Your task to perform on an android device: open app "Grab" Image 0: 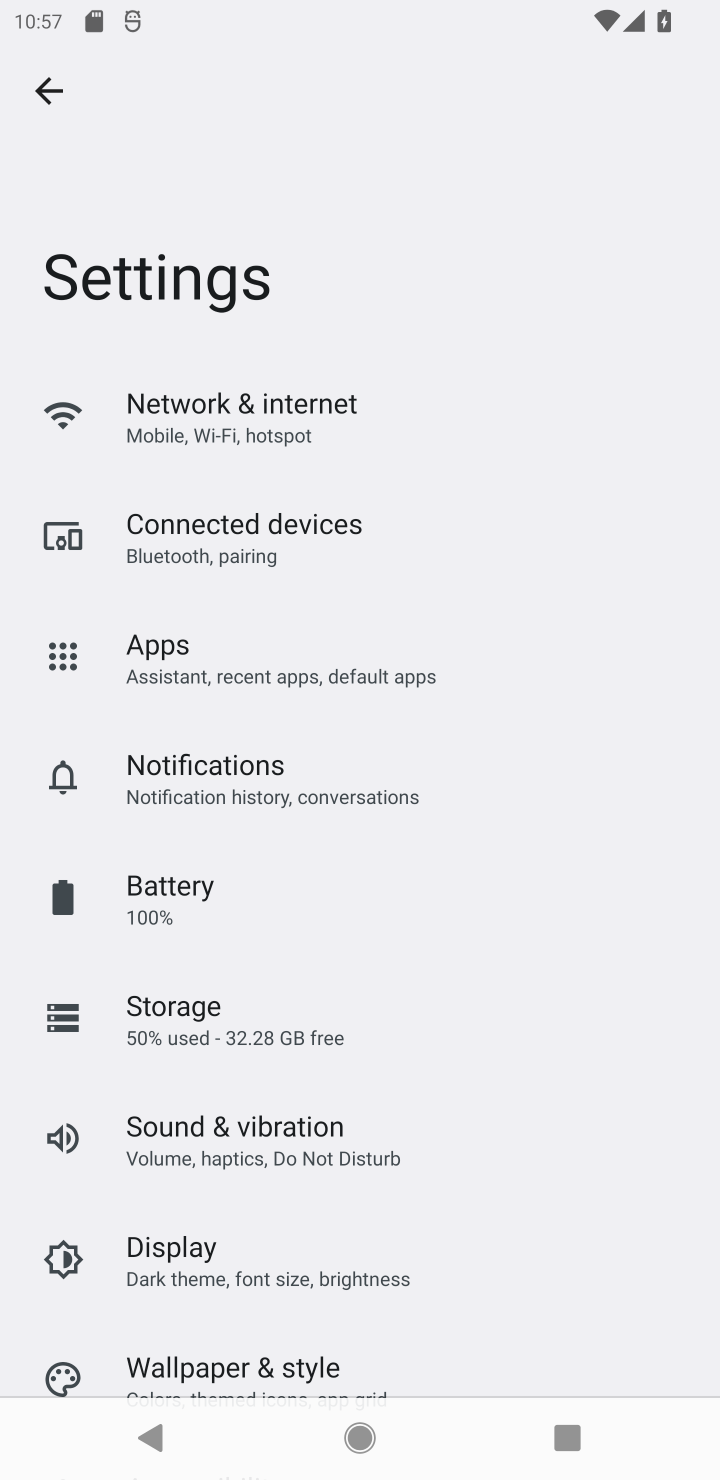
Step 0: press home button
Your task to perform on an android device: open app "Grab" Image 1: 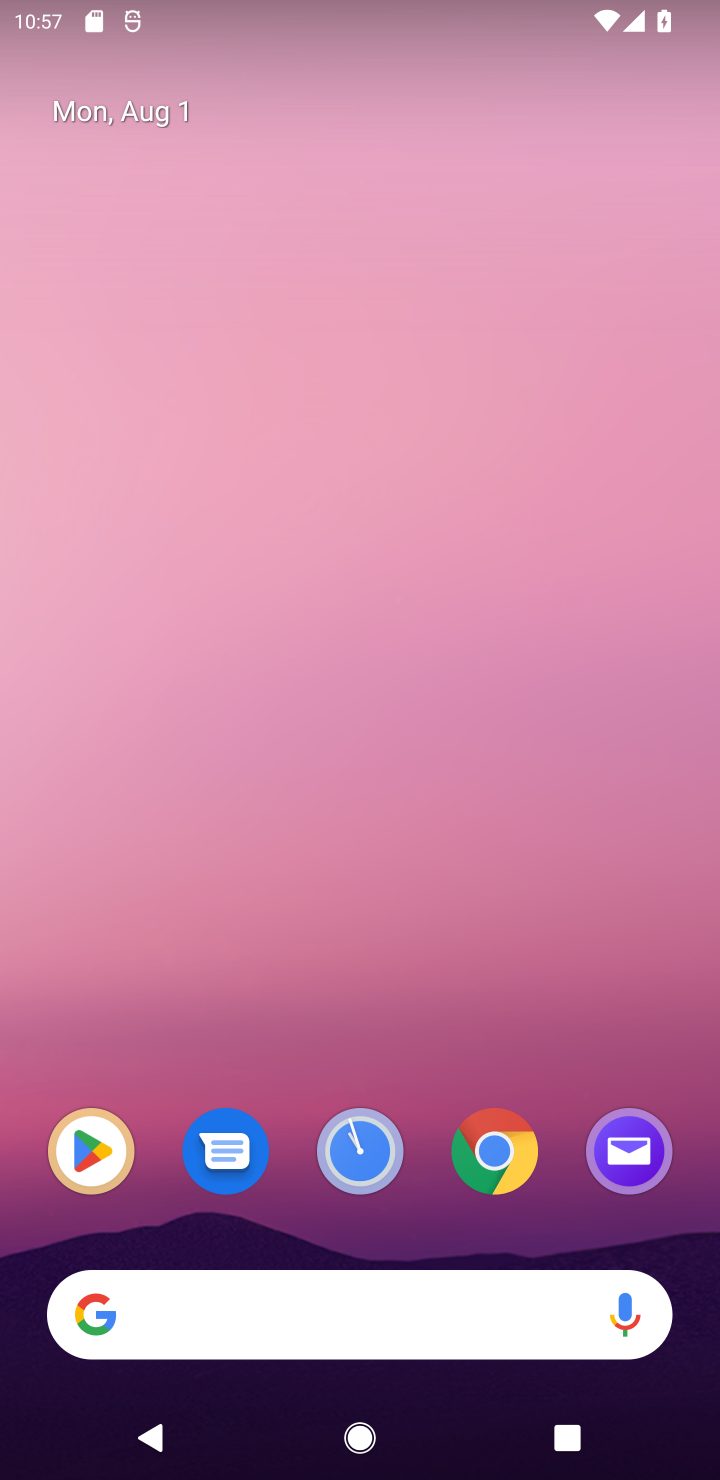
Step 1: drag from (339, 1260) to (579, 377)
Your task to perform on an android device: open app "Grab" Image 2: 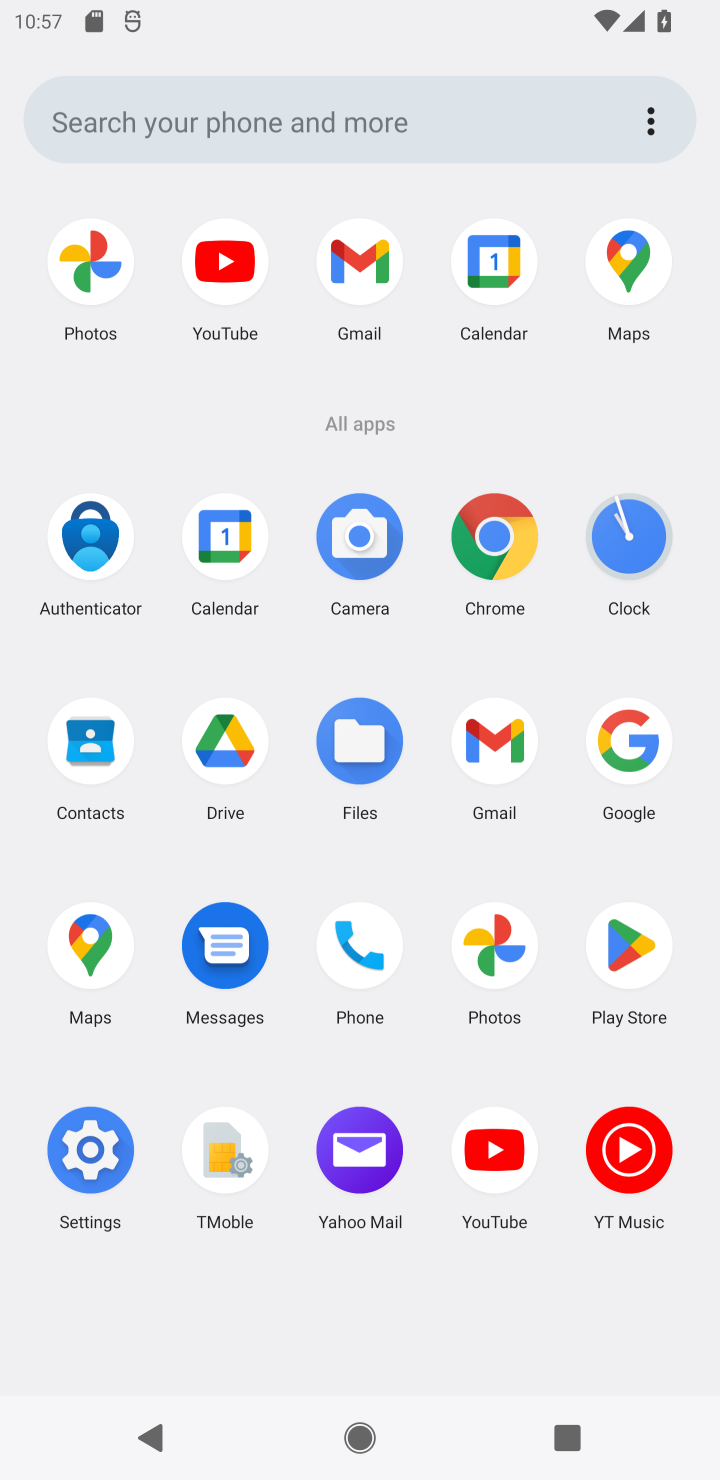
Step 2: click (617, 962)
Your task to perform on an android device: open app "Grab" Image 3: 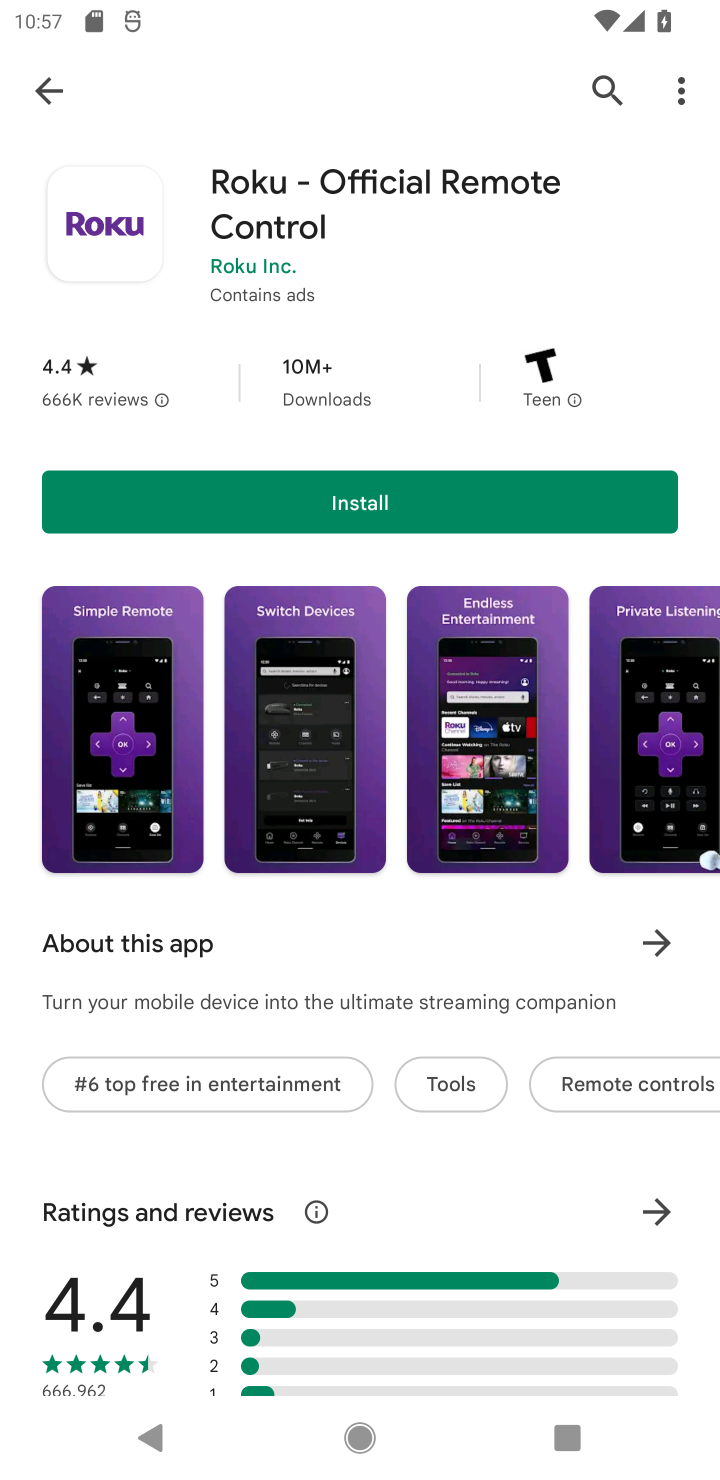
Step 3: click (49, 83)
Your task to perform on an android device: open app "Grab" Image 4: 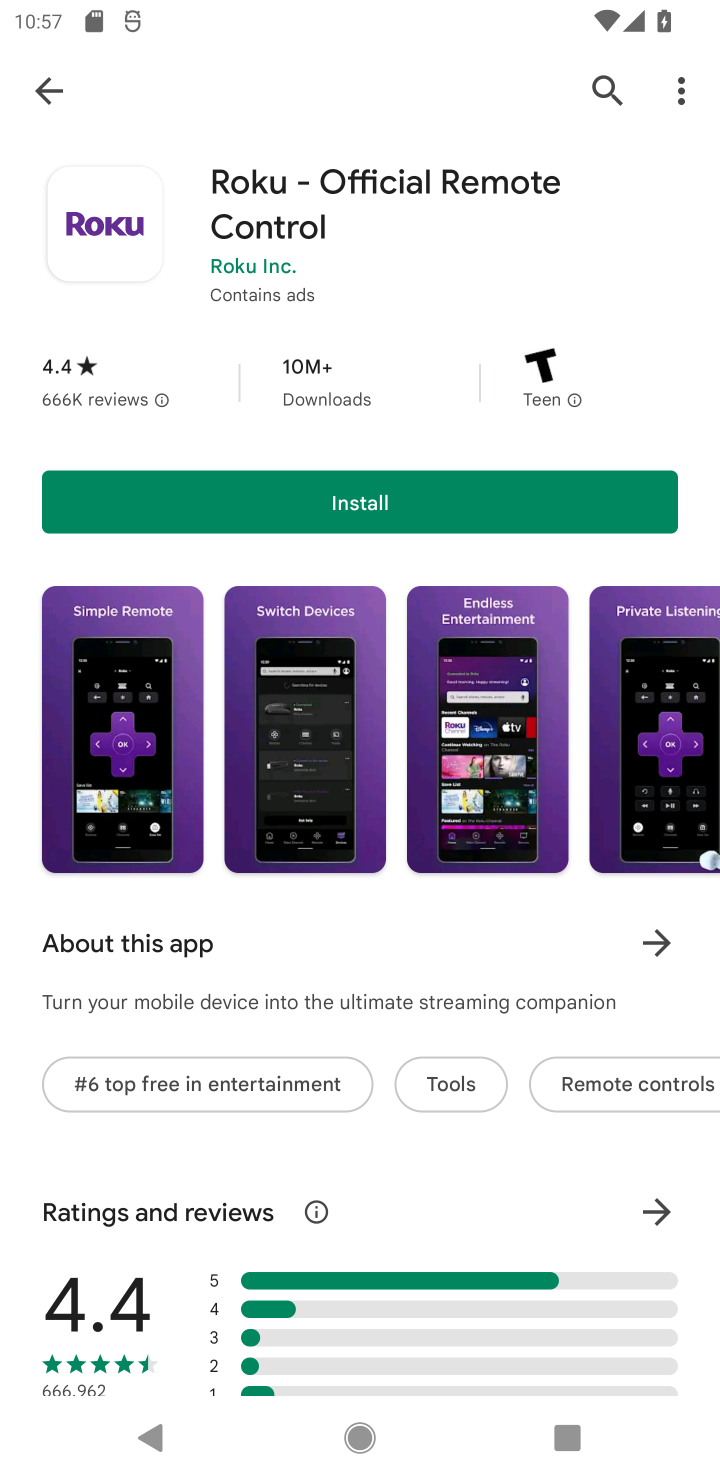
Step 4: click (49, 87)
Your task to perform on an android device: open app "Grab" Image 5: 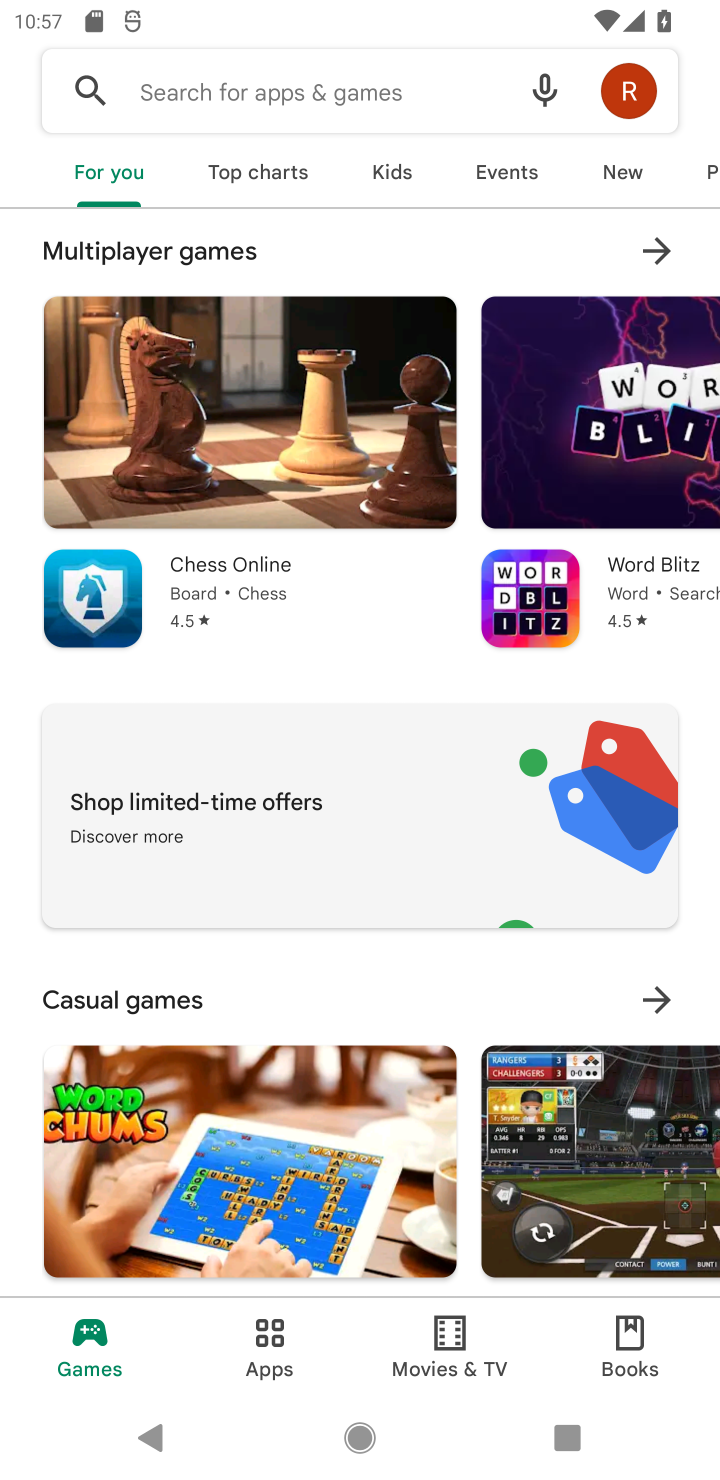
Step 5: click (164, 96)
Your task to perform on an android device: open app "Grab" Image 6: 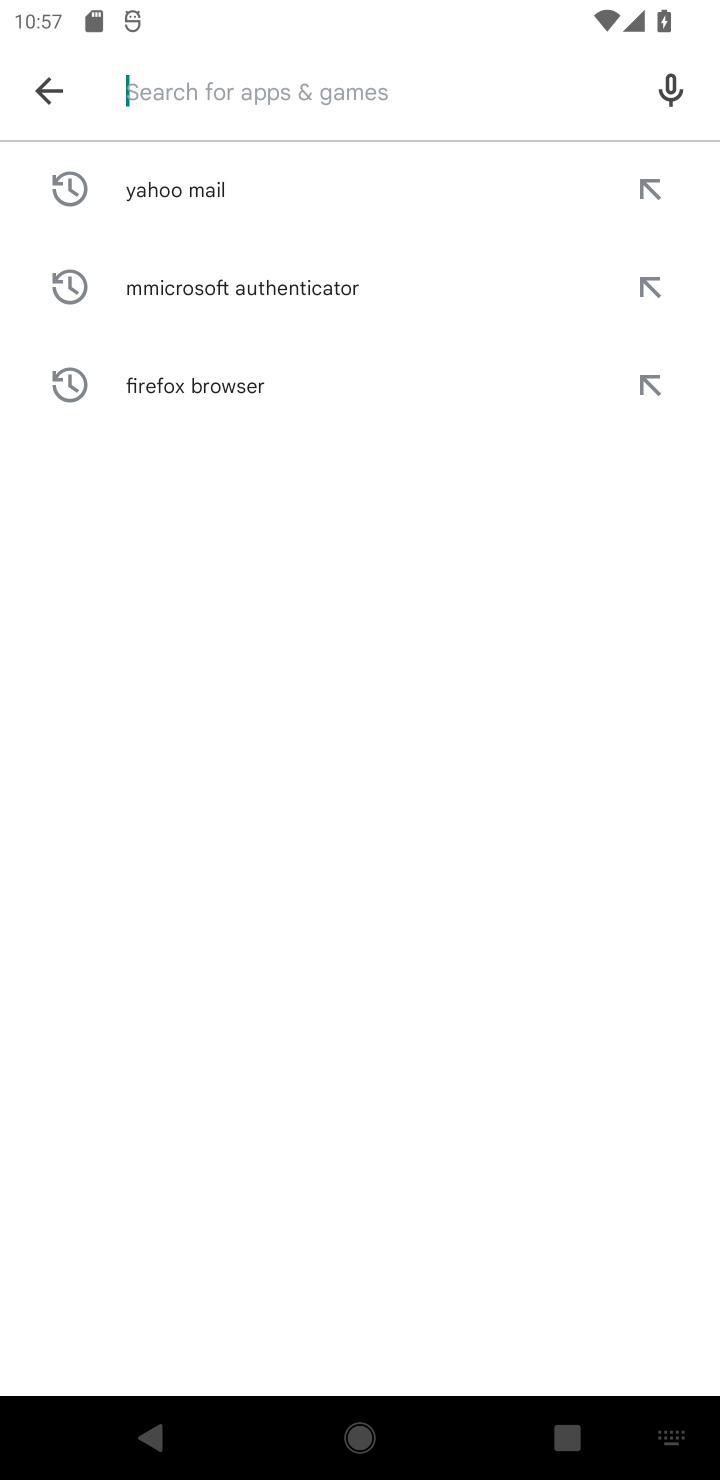
Step 6: type "Grab"
Your task to perform on an android device: open app "Grab" Image 7: 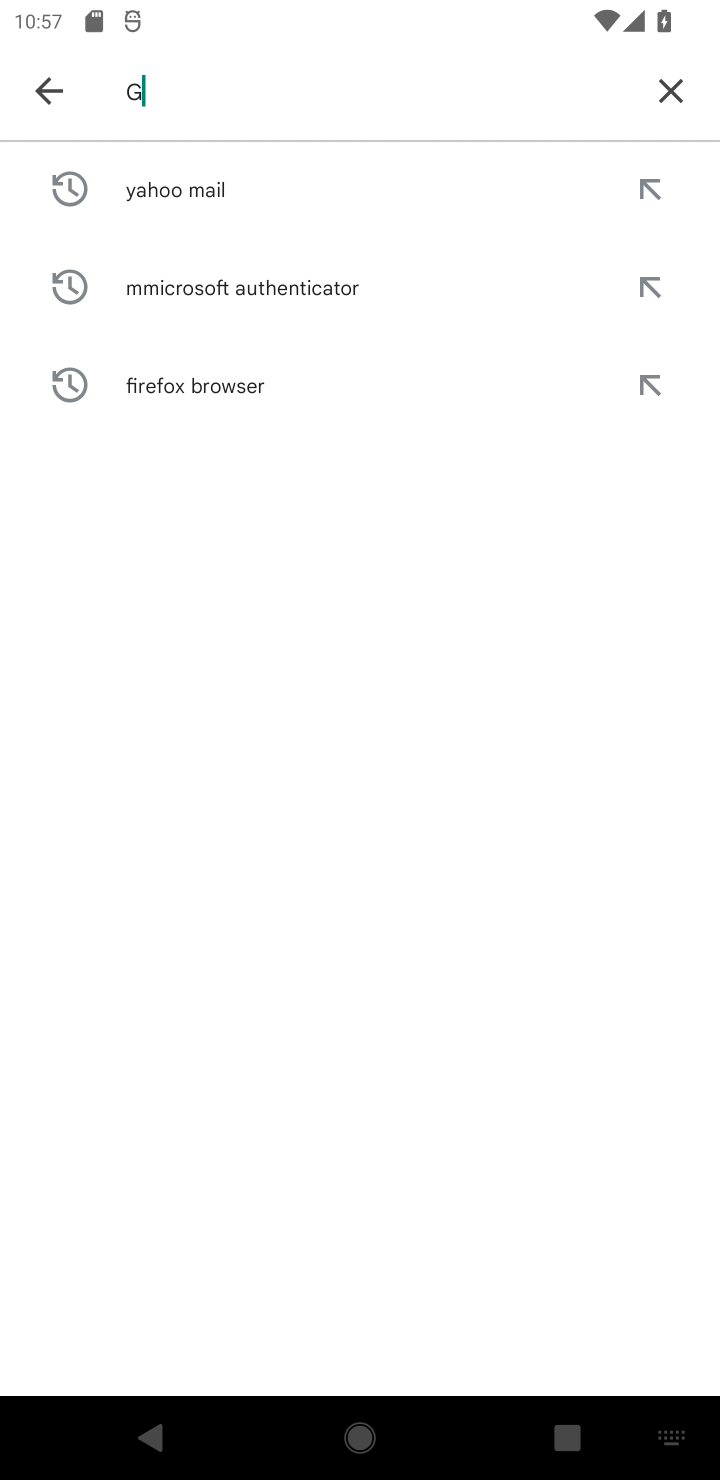
Step 7: type ""
Your task to perform on an android device: open app "Grab" Image 8: 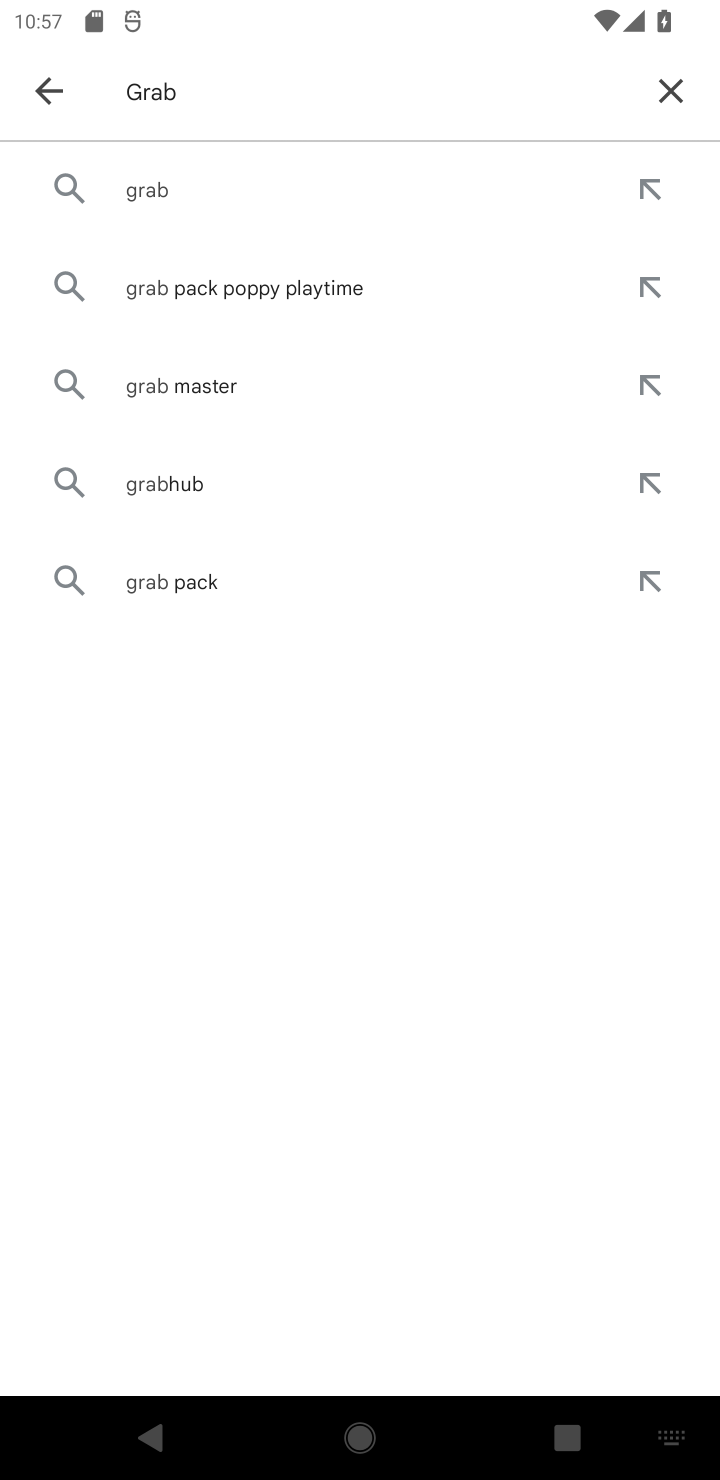
Step 8: click (171, 197)
Your task to perform on an android device: open app "Grab" Image 9: 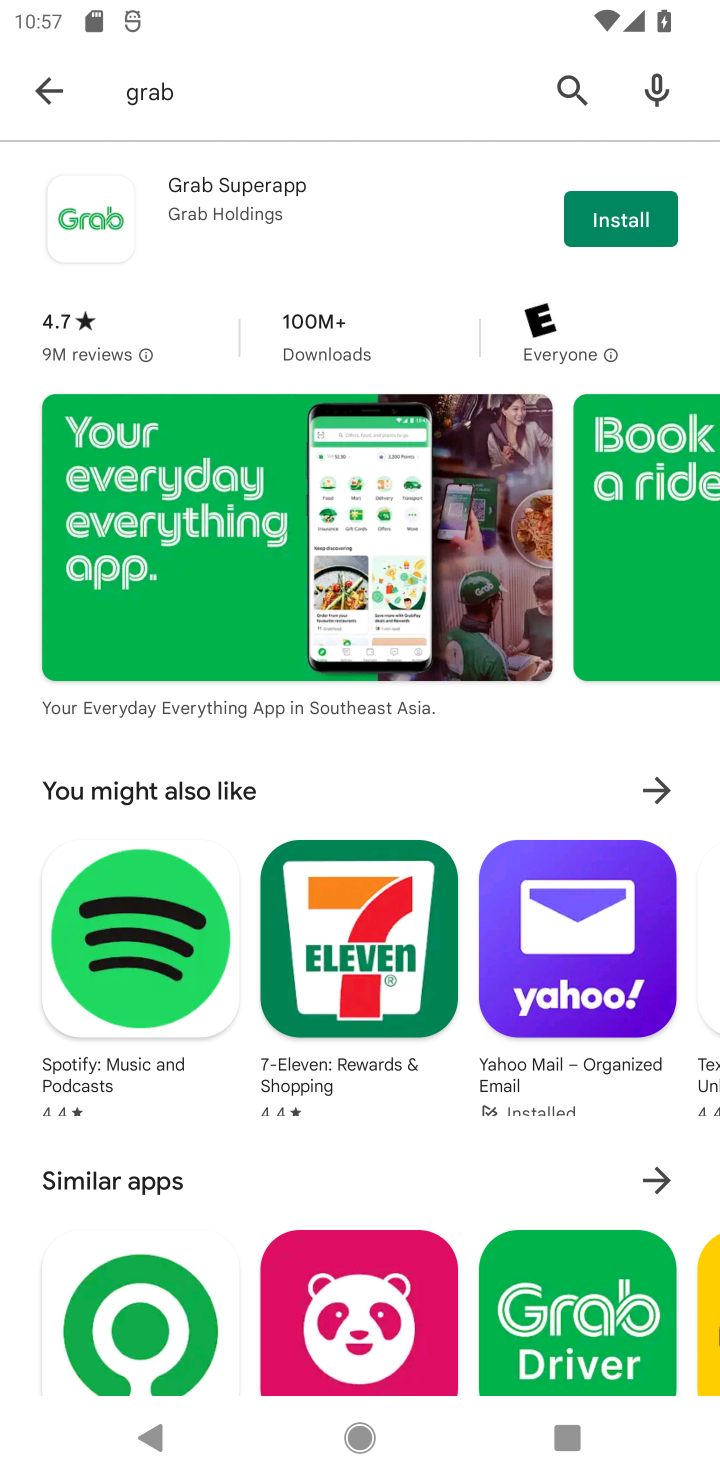
Step 9: task complete